Your task to perform on an android device: Go to CNN.com Image 0: 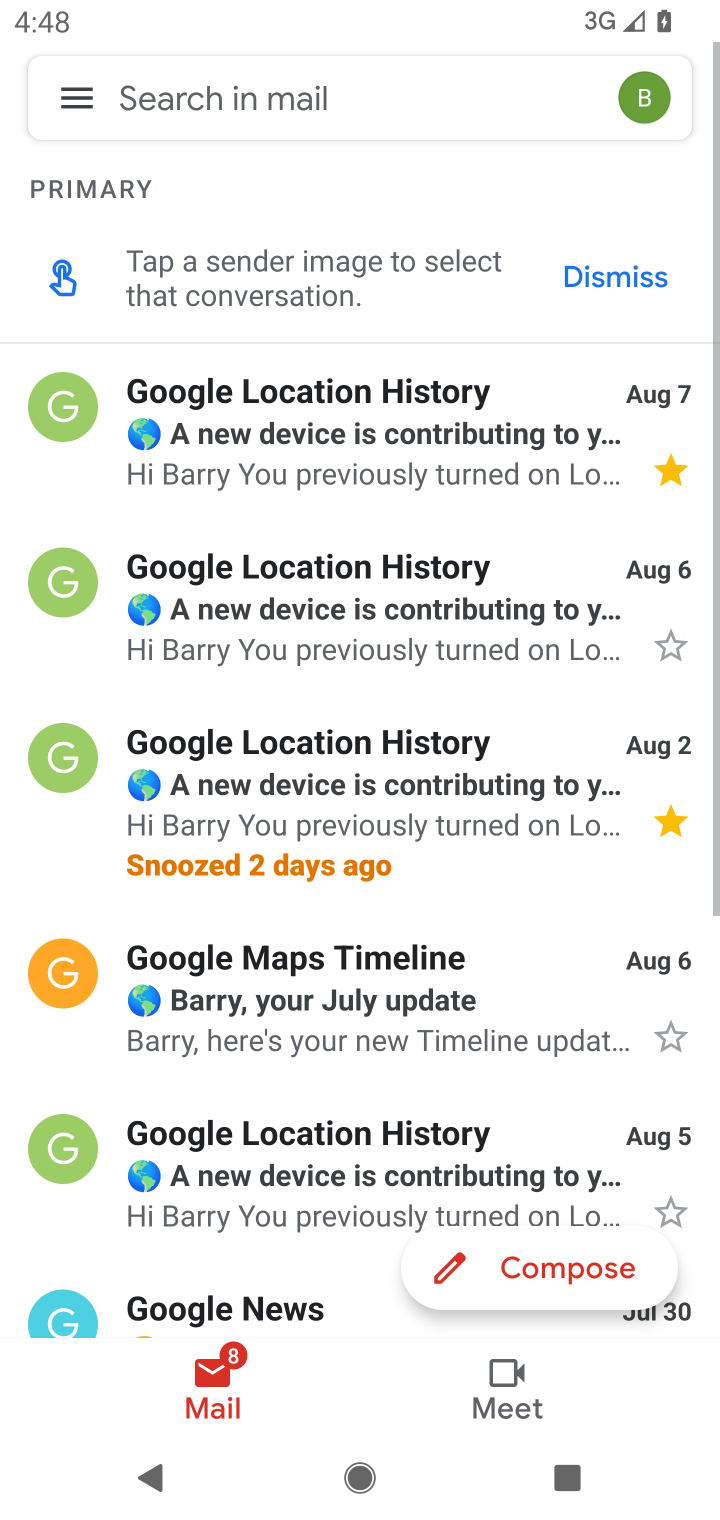
Step 0: press home button
Your task to perform on an android device: Go to CNN.com Image 1: 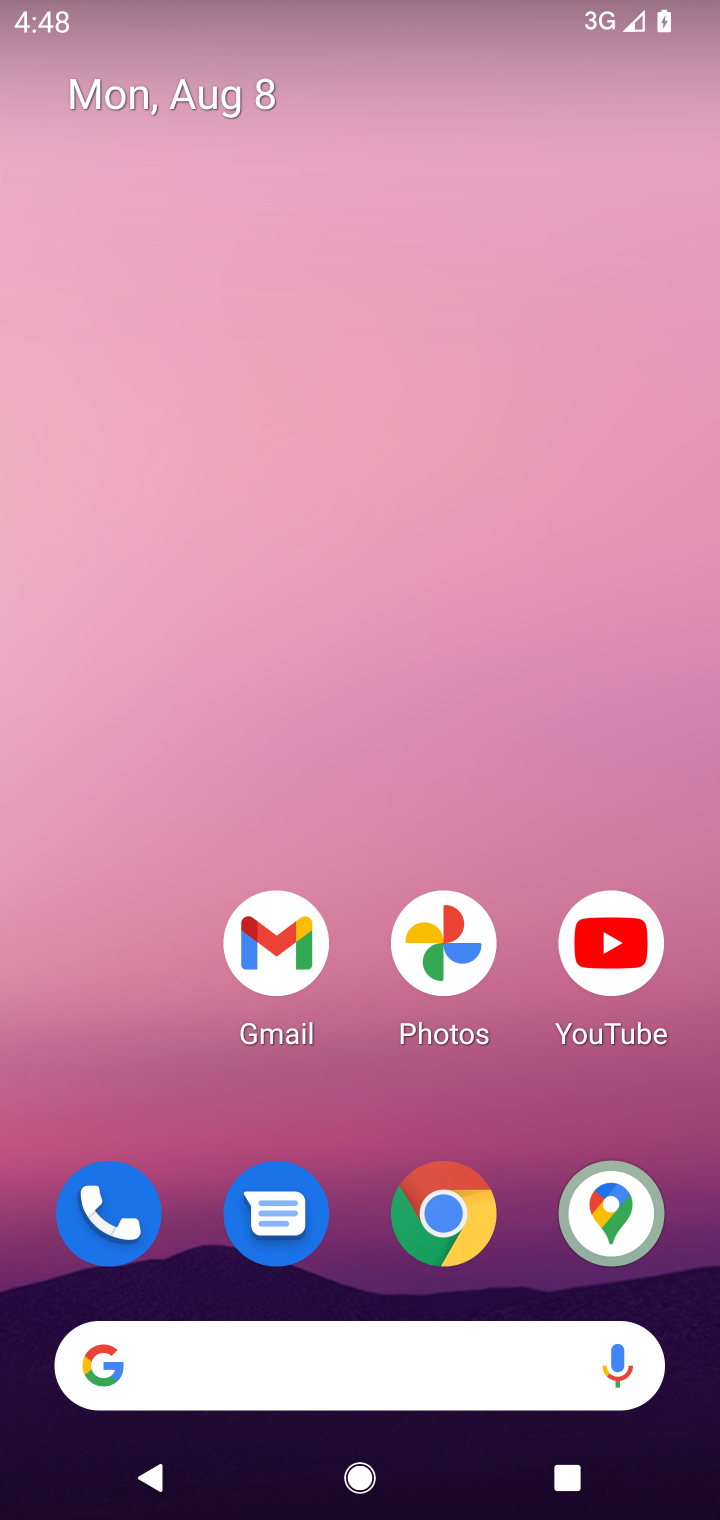
Step 1: click (433, 1237)
Your task to perform on an android device: Go to CNN.com Image 2: 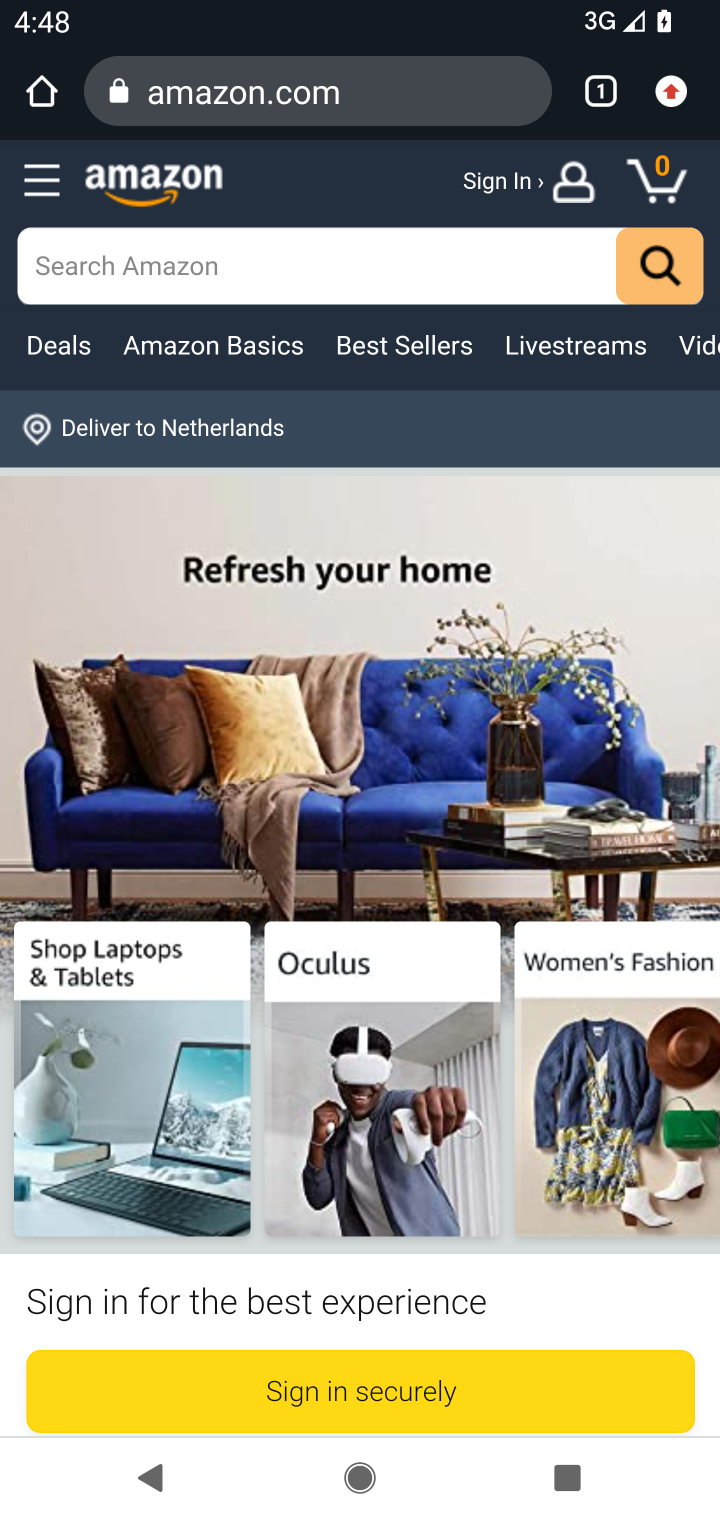
Step 2: click (368, 88)
Your task to perform on an android device: Go to CNN.com Image 3: 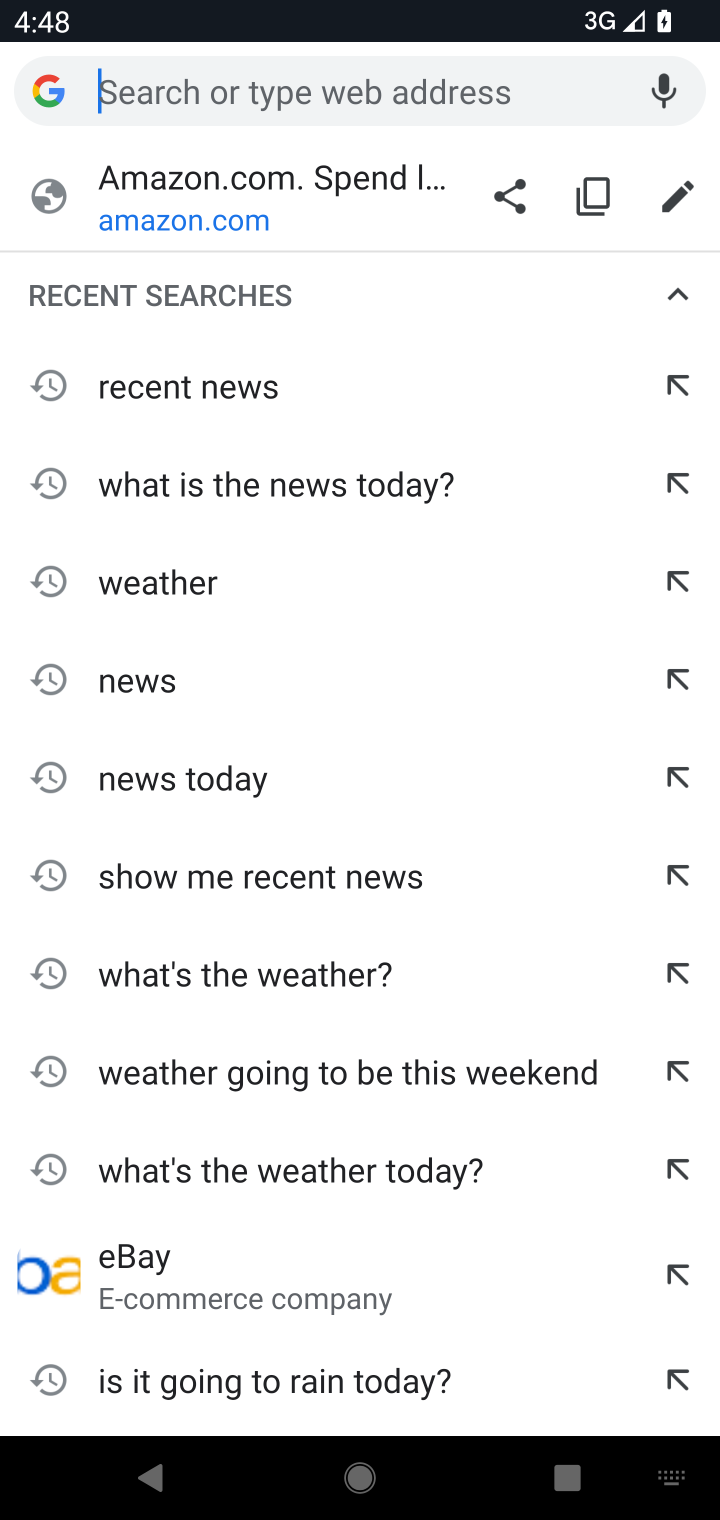
Step 3: type "CNN.com"
Your task to perform on an android device: Go to CNN.com Image 4: 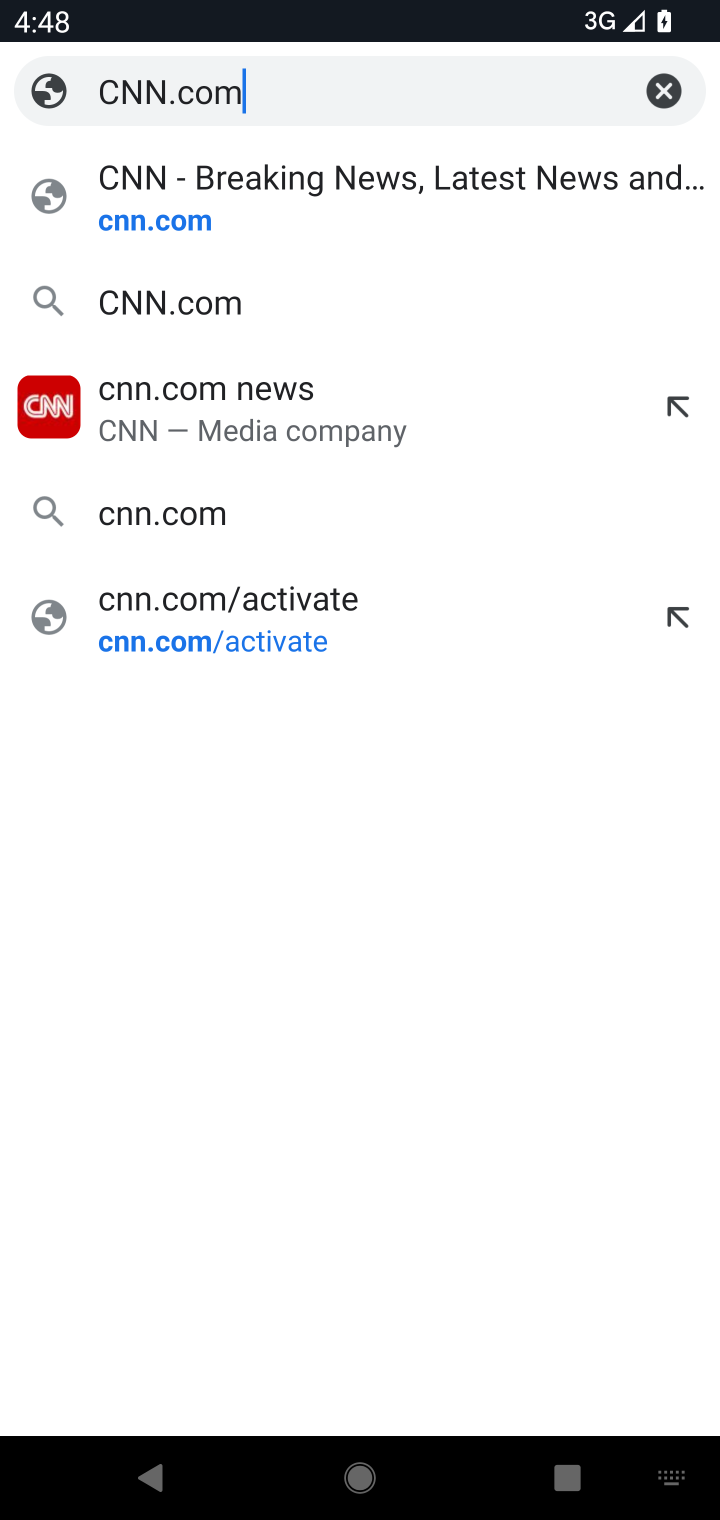
Step 4: click (310, 200)
Your task to perform on an android device: Go to CNN.com Image 5: 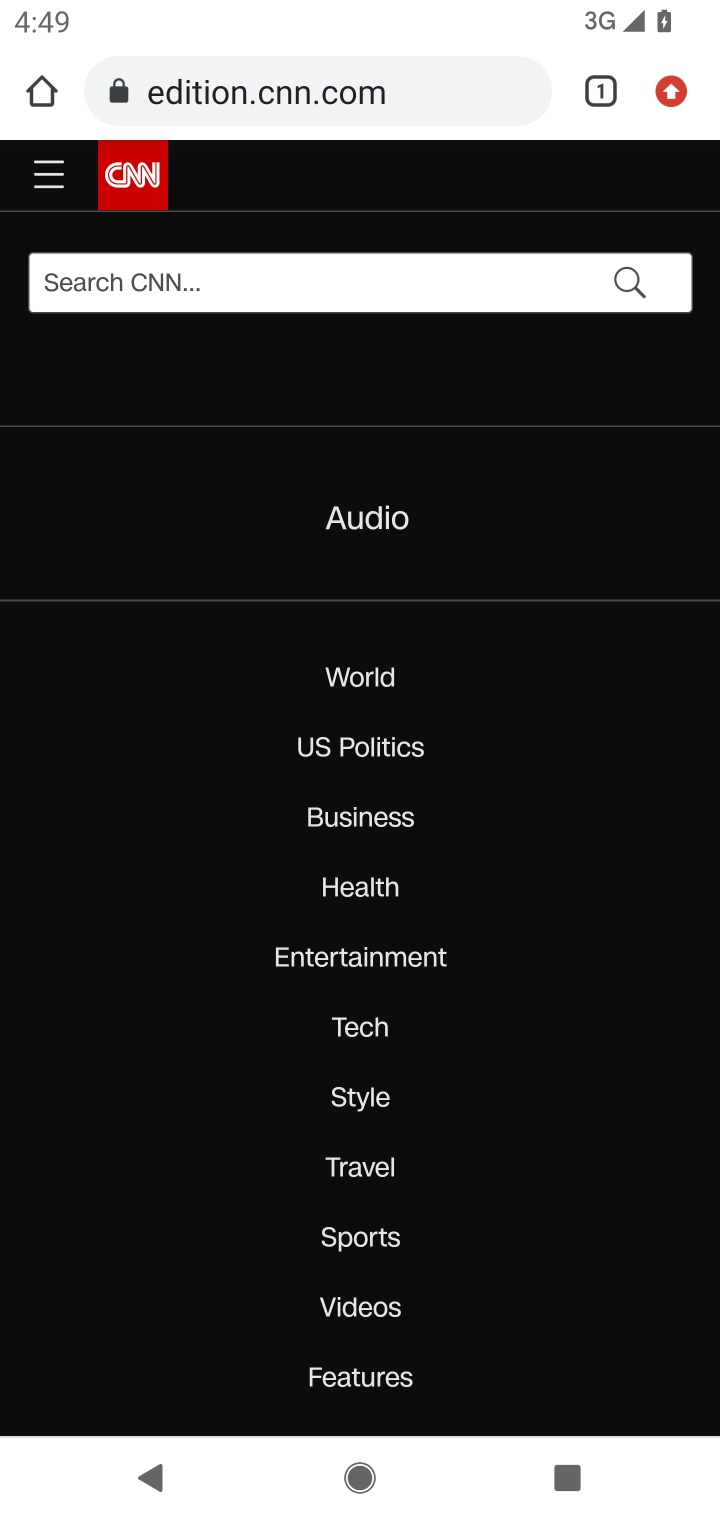
Step 5: task complete